Your task to perform on an android device: open chrome and create a bookmark for the current page Image 0: 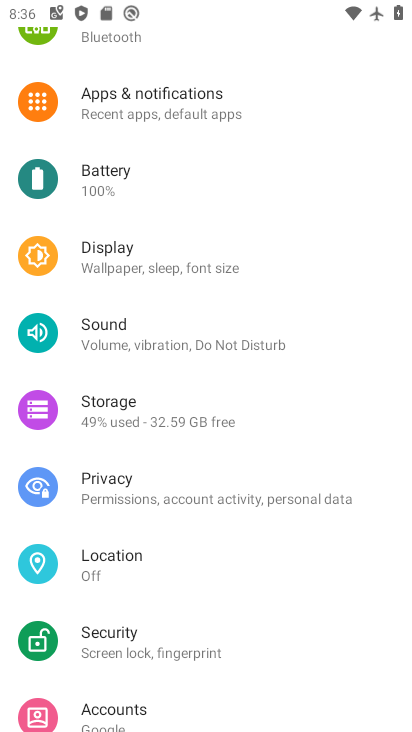
Step 0: press home button
Your task to perform on an android device: open chrome and create a bookmark for the current page Image 1: 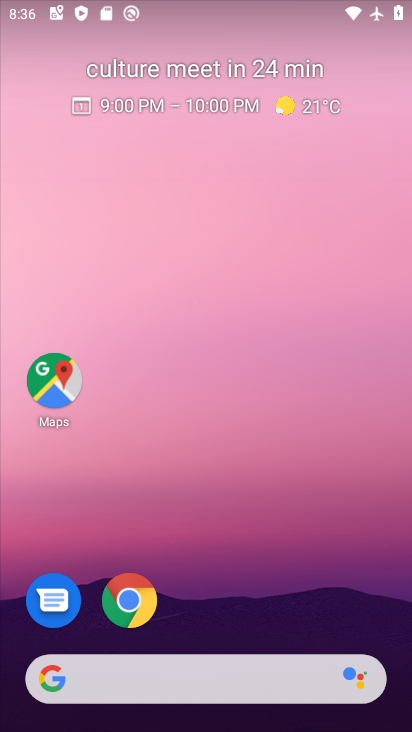
Step 1: click (128, 600)
Your task to perform on an android device: open chrome and create a bookmark for the current page Image 2: 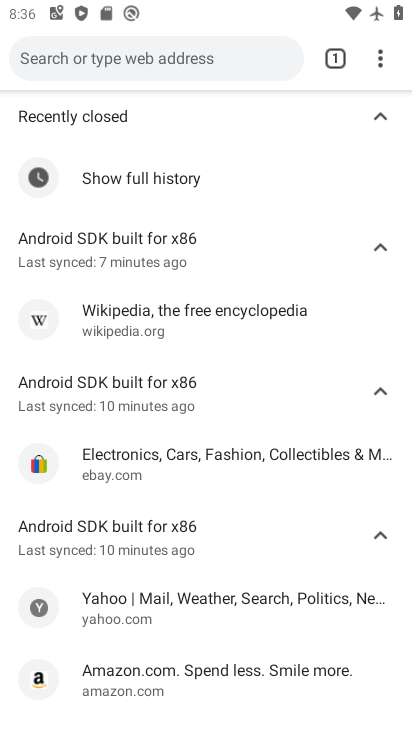
Step 2: click (376, 61)
Your task to perform on an android device: open chrome and create a bookmark for the current page Image 3: 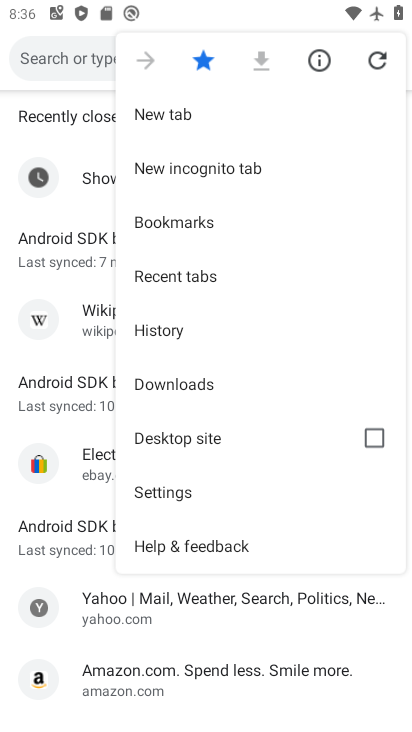
Step 3: task complete